Your task to perform on an android device: clear all cookies in the chrome app Image 0: 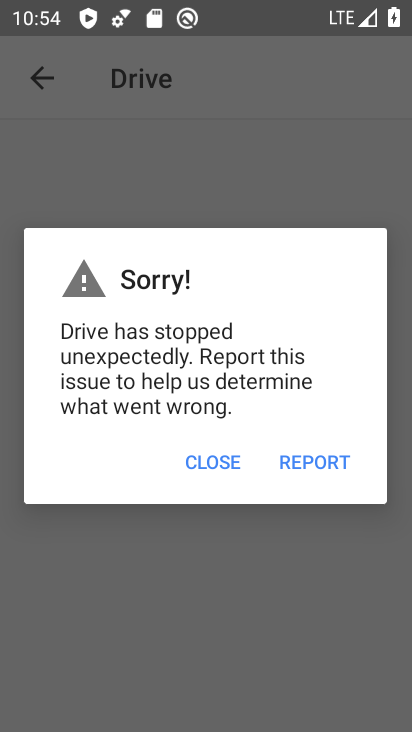
Step 0: press home button
Your task to perform on an android device: clear all cookies in the chrome app Image 1: 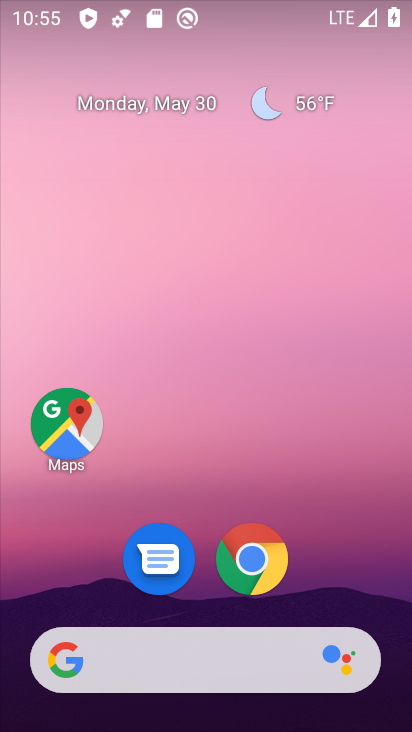
Step 1: click (273, 559)
Your task to perform on an android device: clear all cookies in the chrome app Image 2: 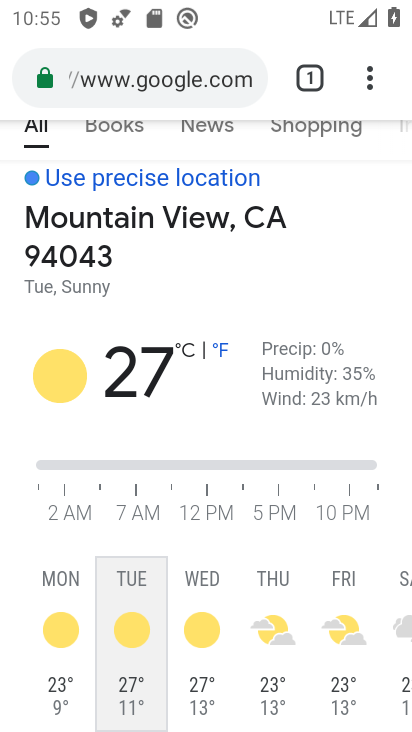
Step 2: click (379, 82)
Your task to perform on an android device: clear all cookies in the chrome app Image 3: 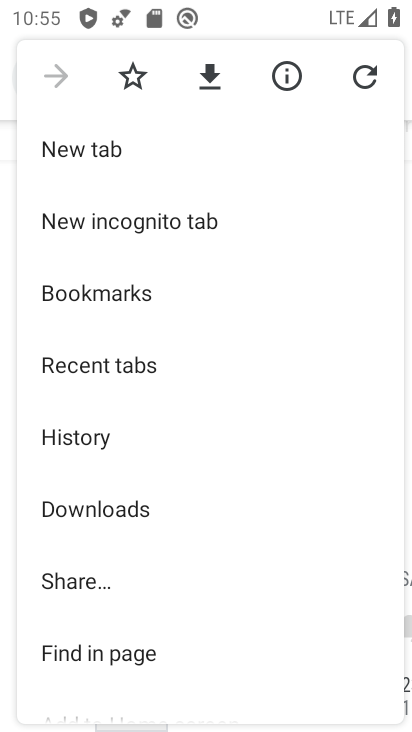
Step 3: click (216, 438)
Your task to perform on an android device: clear all cookies in the chrome app Image 4: 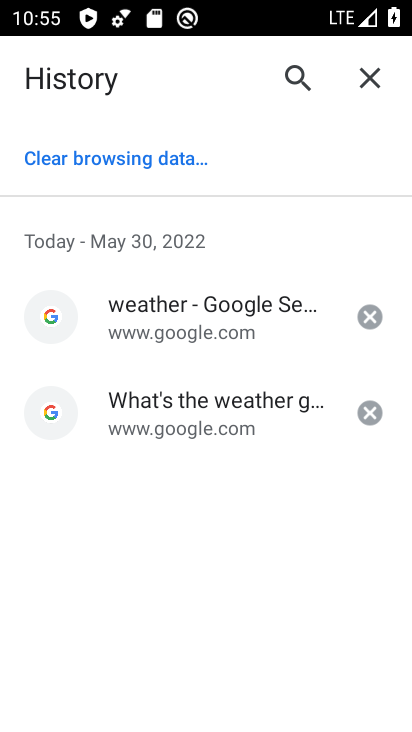
Step 4: click (111, 150)
Your task to perform on an android device: clear all cookies in the chrome app Image 5: 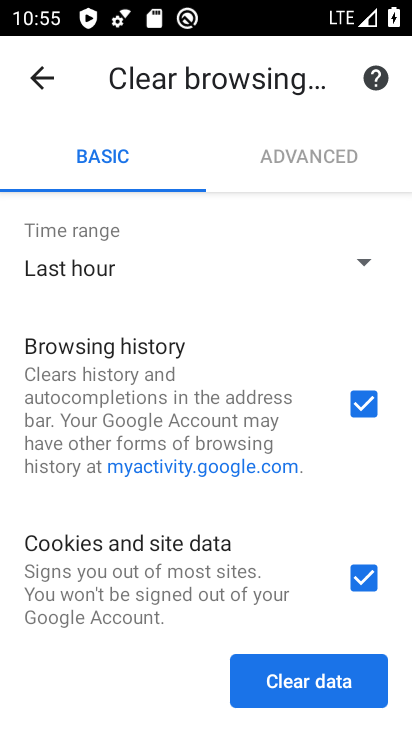
Step 5: click (363, 400)
Your task to perform on an android device: clear all cookies in the chrome app Image 6: 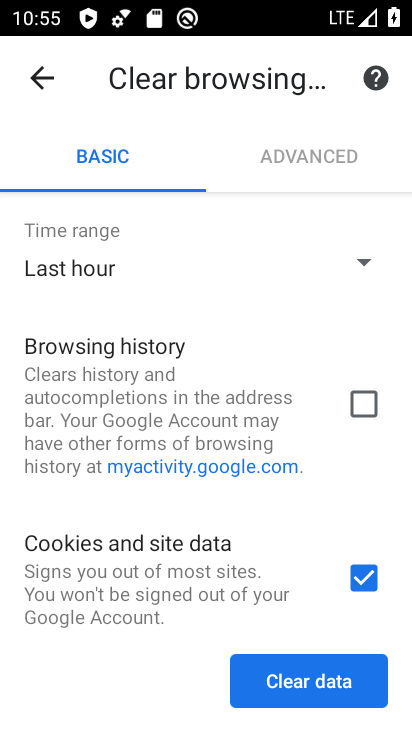
Step 6: click (342, 685)
Your task to perform on an android device: clear all cookies in the chrome app Image 7: 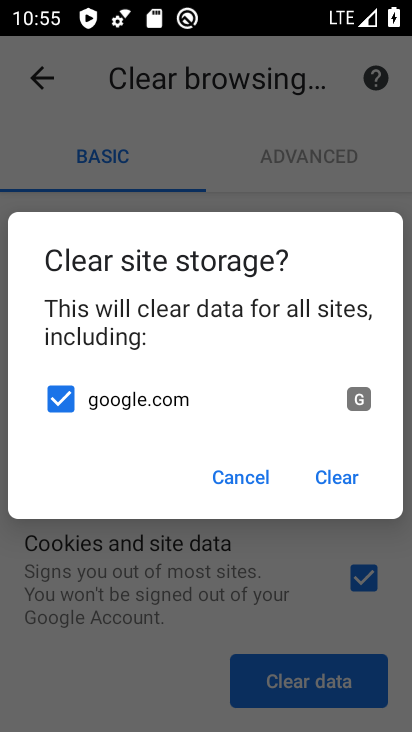
Step 7: click (341, 467)
Your task to perform on an android device: clear all cookies in the chrome app Image 8: 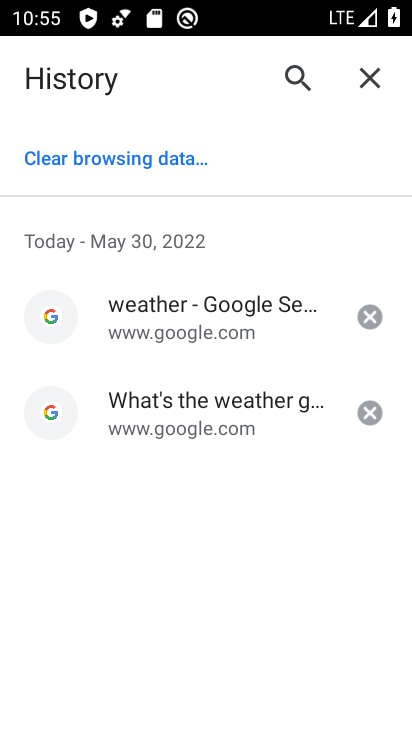
Step 8: task complete